Your task to perform on an android device: Go to Google maps Image 0: 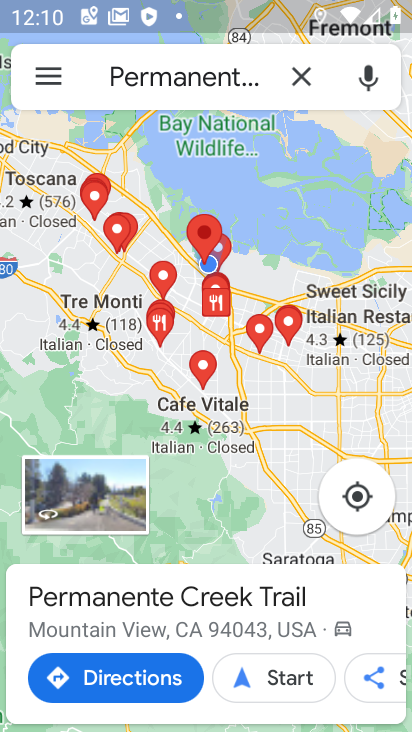
Step 0: drag from (269, 473) to (163, 690)
Your task to perform on an android device: Go to Google maps Image 1: 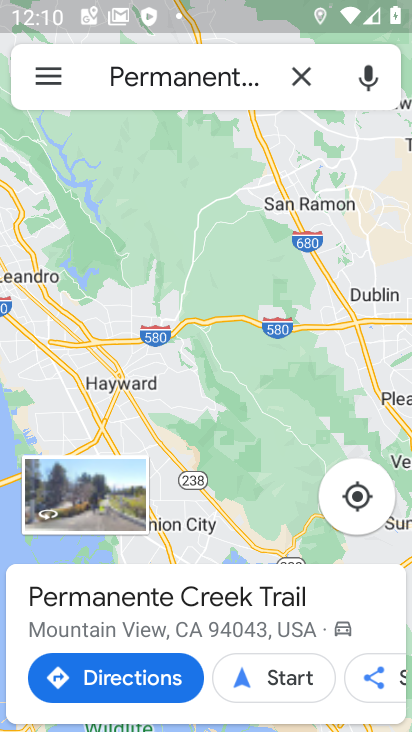
Step 1: task complete